Your task to perform on an android device: Show me popular videos on Youtube Image 0: 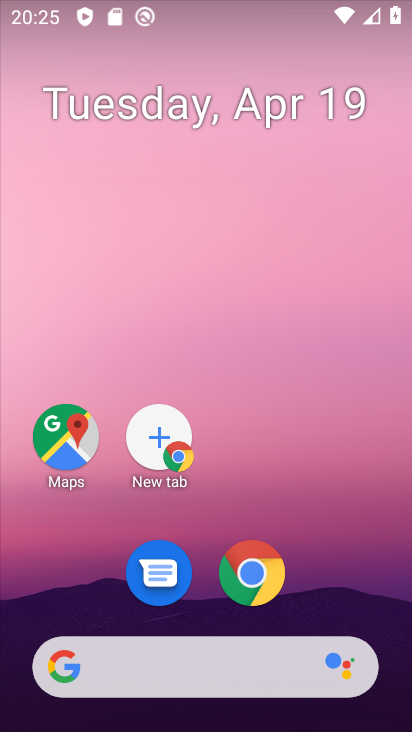
Step 0: drag from (359, 262) to (337, 66)
Your task to perform on an android device: Show me popular videos on Youtube Image 1: 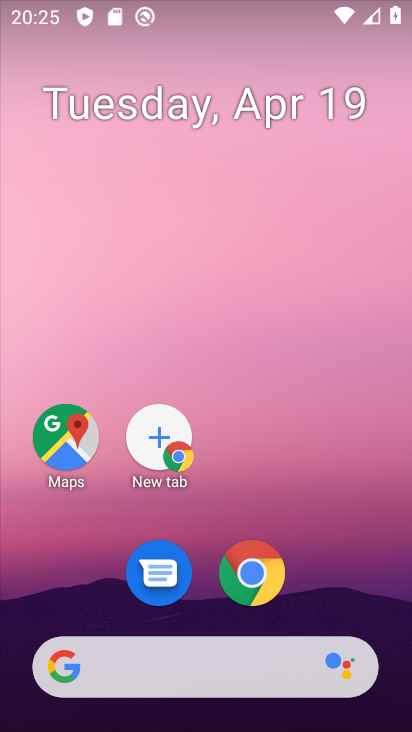
Step 1: drag from (384, 602) to (367, 127)
Your task to perform on an android device: Show me popular videos on Youtube Image 2: 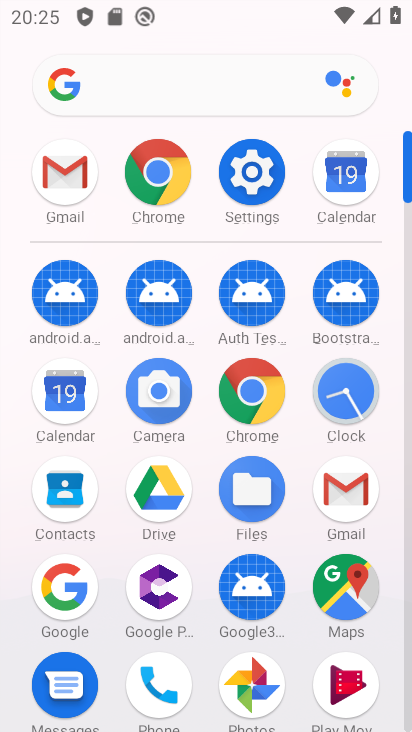
Step 2: drag from (403, 184) to (410, 294)
Your task to perform on an android device: Show me popular videos on Youtube Image 3: 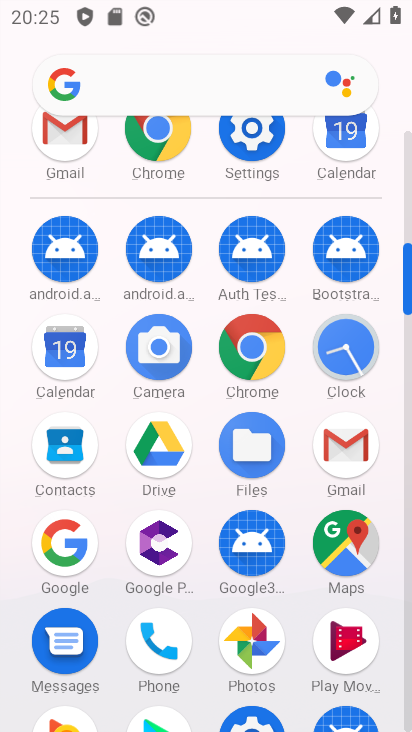
Step 3: drag from (405, 224) to (405, 111)
Your task to perform on an android device: Show me popular videos on Youtube Image 4: 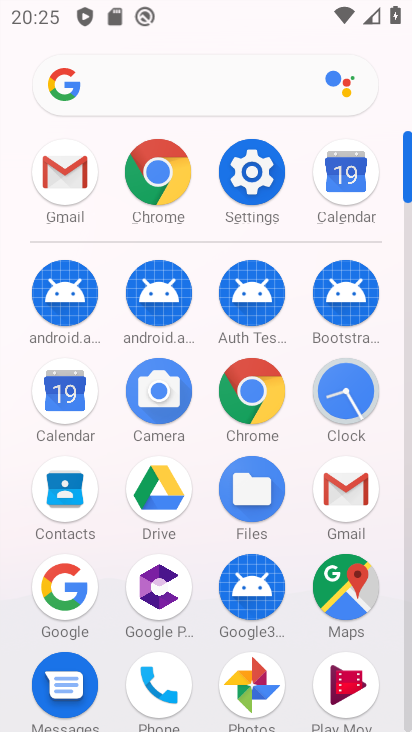
Step 4: drag from (406, 142) to (411, 70)
Your task to perform on an android device: Show me popular videos on Youtube Image 5: 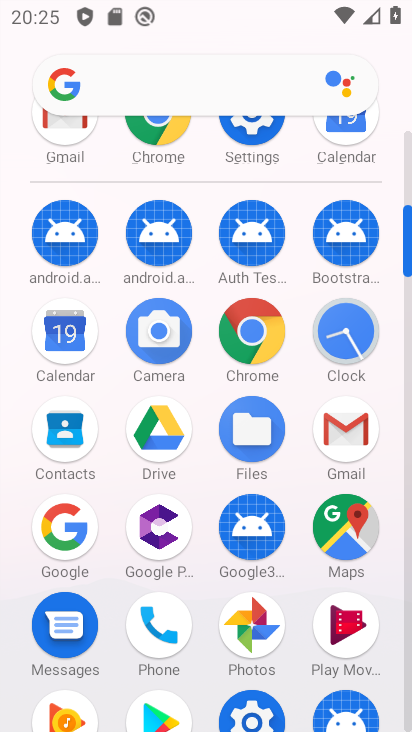
Step 5: drag from (407, 217) to (410, 71)
Your task to perform on an android device: Show me popular videos on Youtube Image 6: 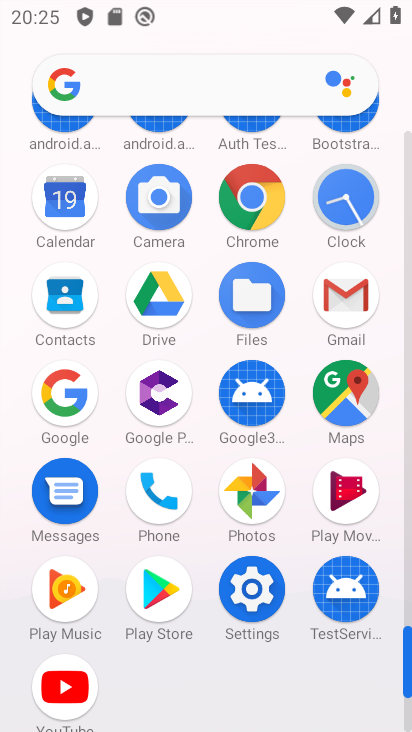
Step 6: click (73, 684)
Your task to perform on an android device: Show me popular videos on Youtube Image 7: 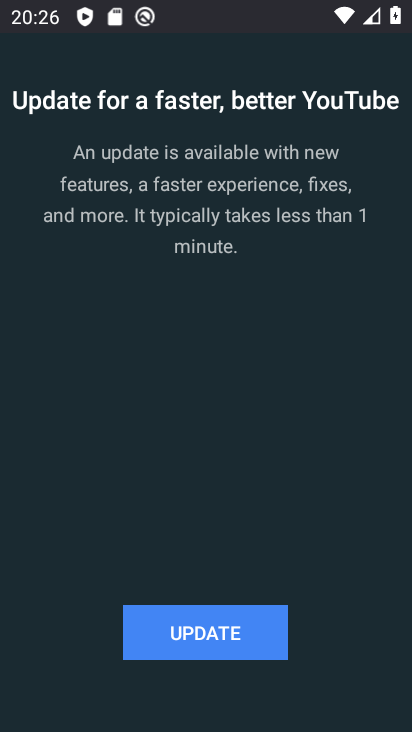
Step 7: click (209, 627)
Your task to perform on an android device: Show me popular videos on Youtube Image 8: 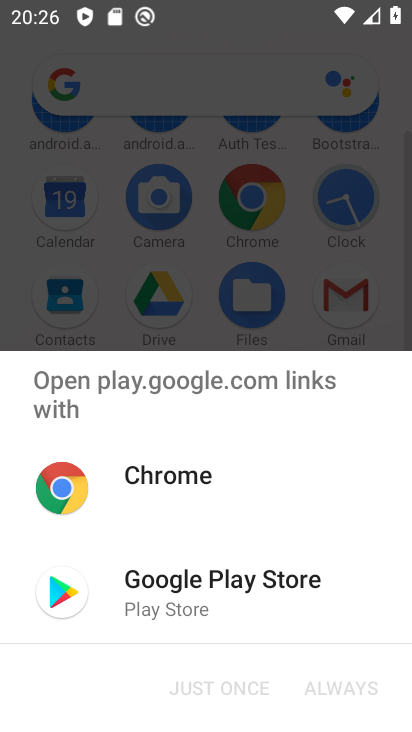
Step 8: click (145, 575)
Your task to perform on an android device: Show me popular videos on Youtube Image 9: 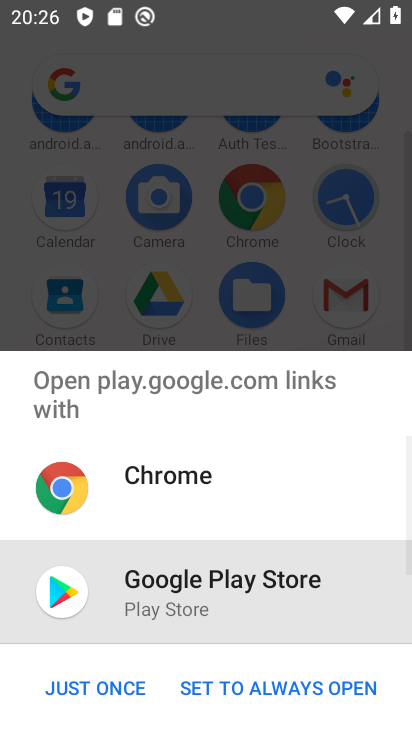
Step 9: click (114, 681)
Your task to perform on an android device: Show me popular videos on Youtube Image 10: 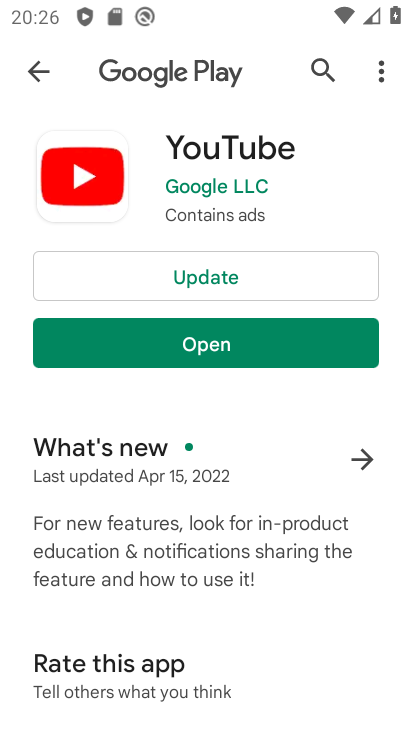
Step 10: click (243, 281)
Your task to perform on an android device: Show me popular videos on Youtube Image 11: 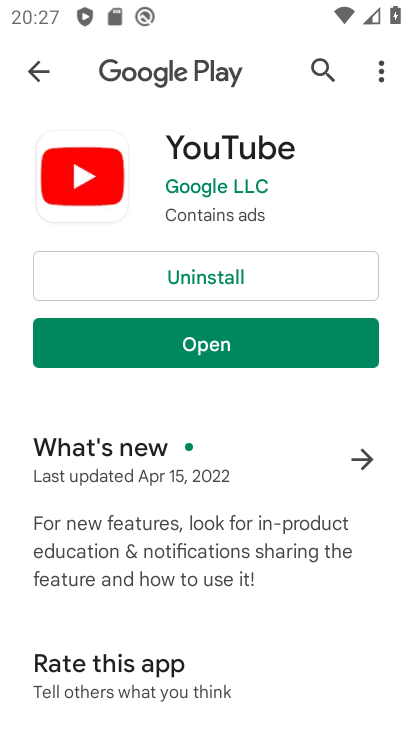
Step 11: click (261, 350)
Your task to perform on an android device: Show me popular videos on Youtube Image 12: 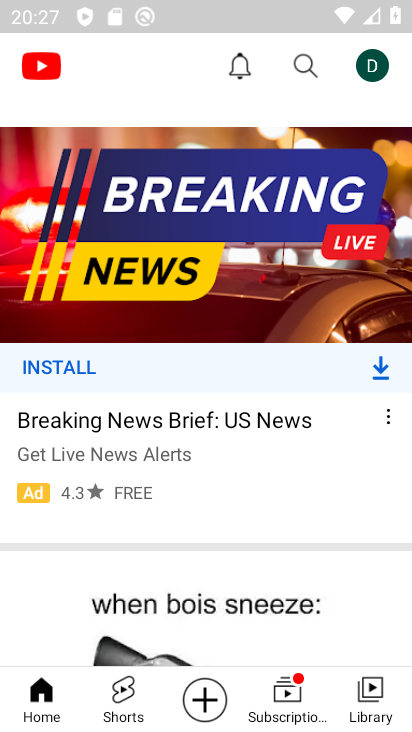
Step 12: click (303, 55)
Your task to perform on an android device: Show me popular videos on Youtube Image 13: 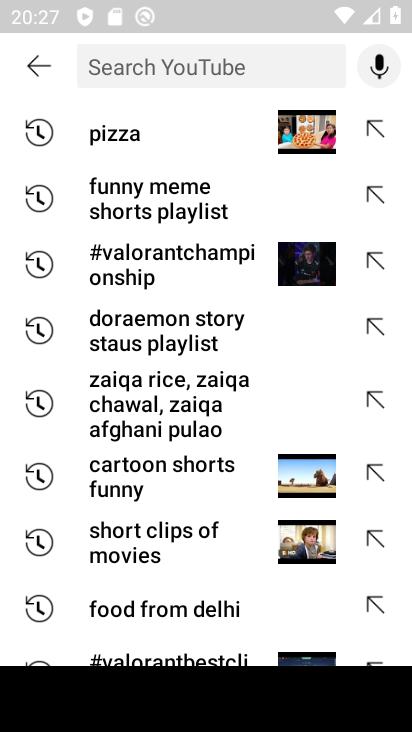
Step 13: type "popular videos"
Your task to perform on an android device: Show me popular videos on Youtube Image 14: 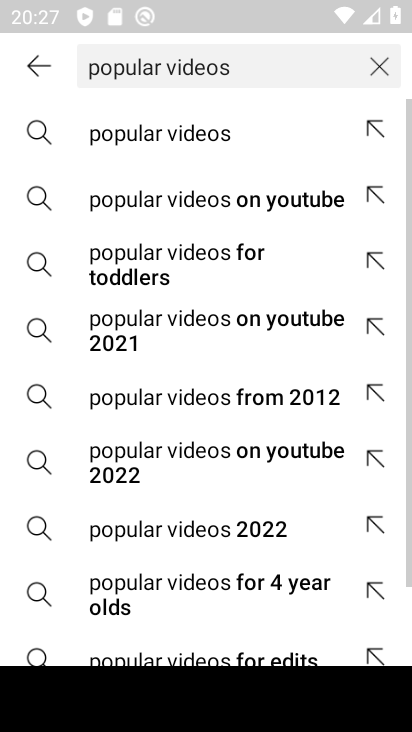
Step 14: click (210, 128)
Your task to perform on an android device: Show me popular videos on Youtube Image 15: 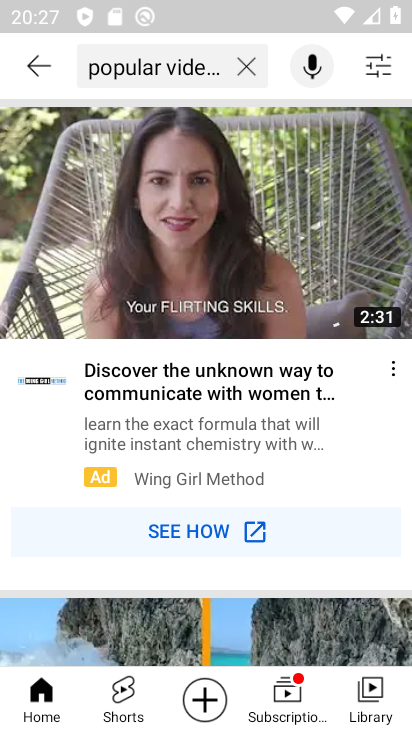
Step 15: task complete